Your task to perform on an android device: Open Wikipedia Image 0: 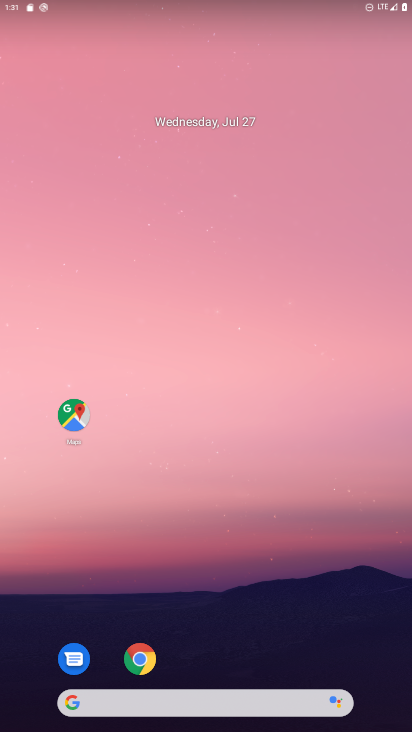
Step 0: click (135, 663)
Your task to perform on an android device: Open Wikipedia Image 1: 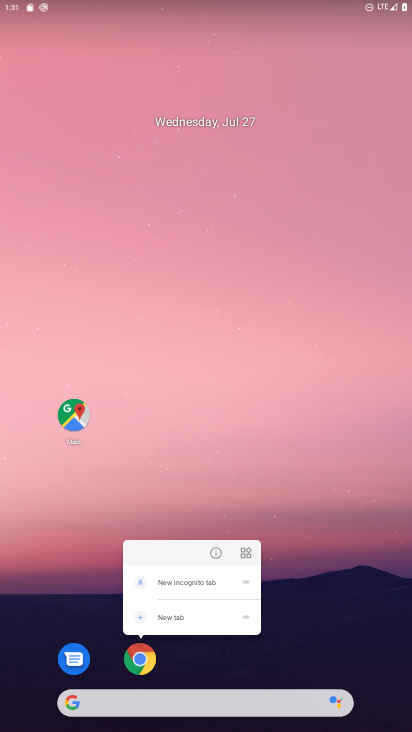
Step 1: click (149, 720)
Your task to perform on an android device: Open Wikipedia Image 2: 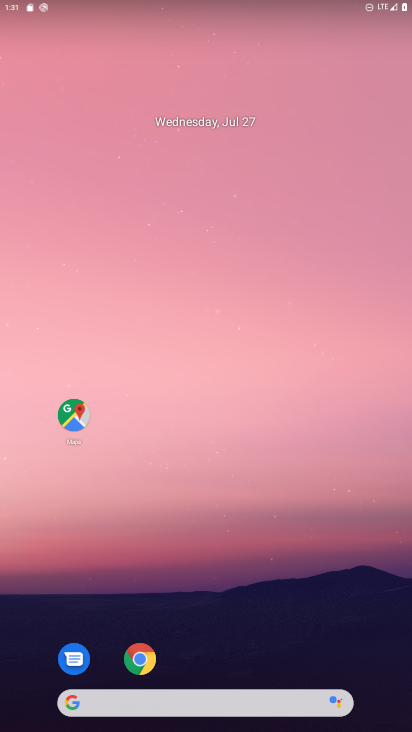
Step 2: click (176, 693)
Your task to perform on an android device: Open Wikipedia Image 3: 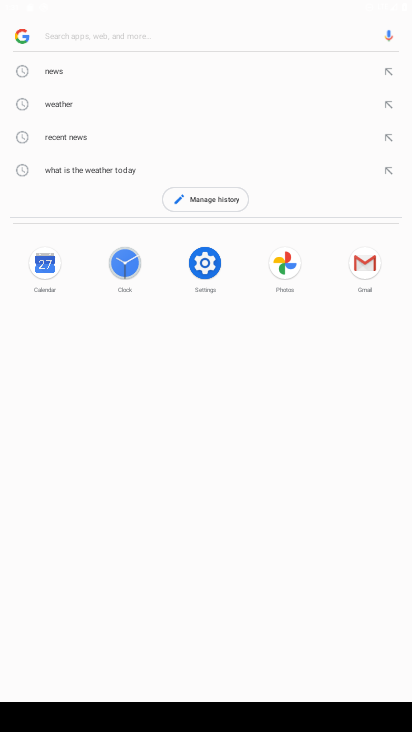
Step 3: click (145, 37)
Your task to perform on an android device: Open Wikipedia Image 4: 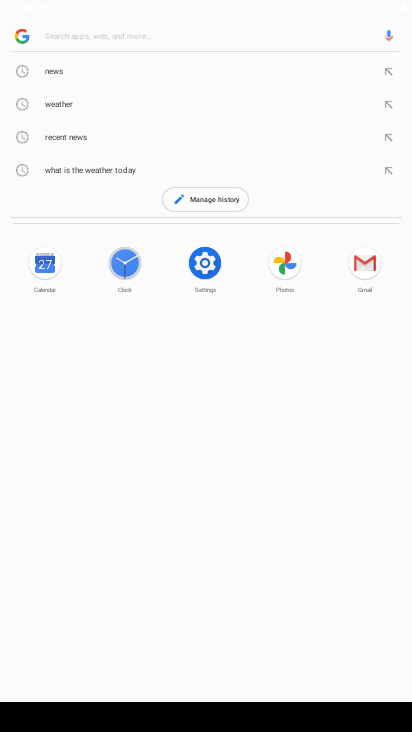
Step 4: type "wikipedia"
Your task to perform on an android device: Open Wikipedia Image 5: 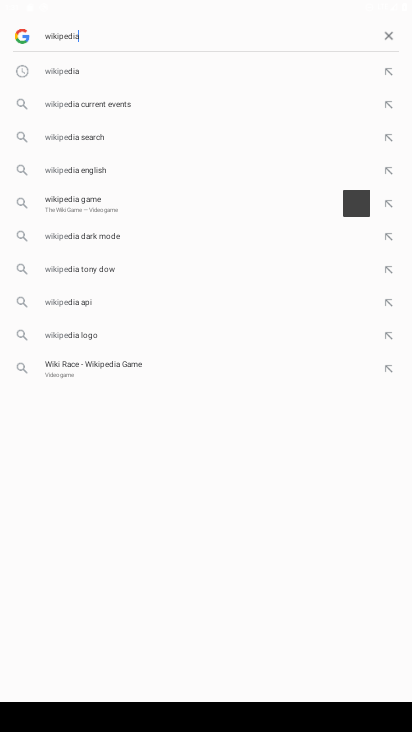
Step 5: type ""
Your task to perform on an android device: Open Wikipedia Image 6: 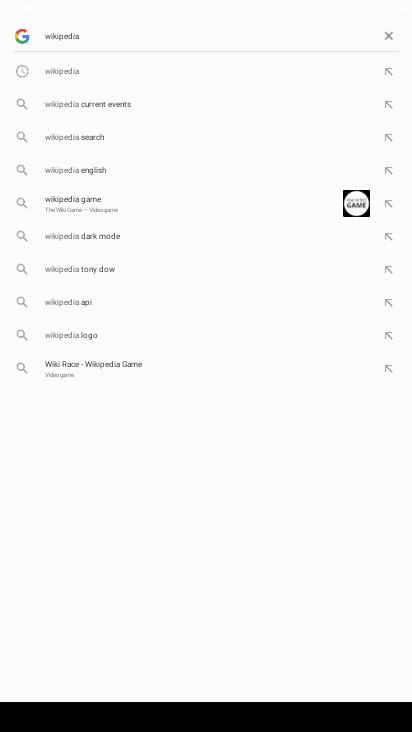
Step 6: click (94, 73)
Your task to perform on an android device: Open Wikipedia Image 7: 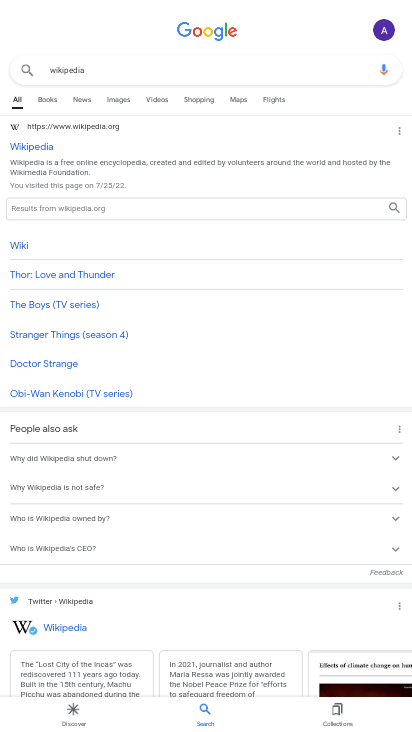
Step 7: click (40, 151)
Your task to perform on an android device: Open Wikipedia Image 8: 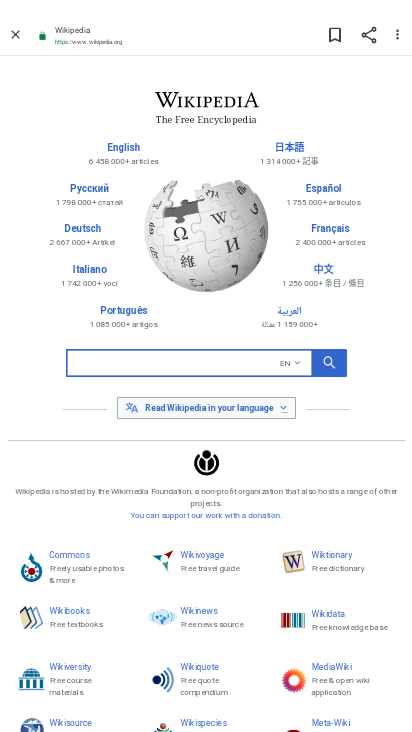
Step 8: task complete